Your task to perform on an android device: Show me recent news Image 0: 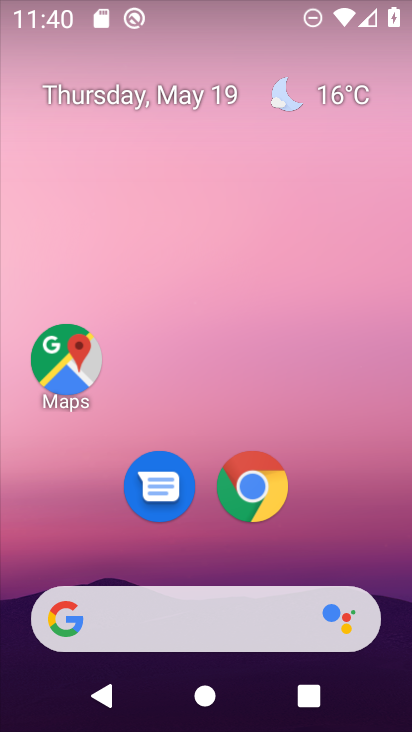
Step 0: click (245, 621)
Your task to perform on an android device: Show me recent news Image 1: 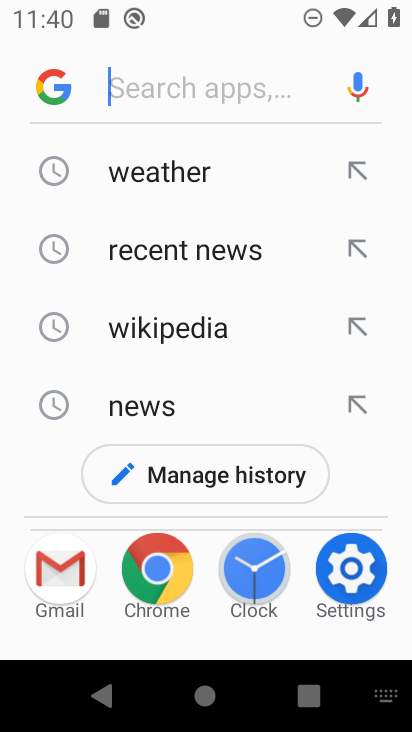
Step 1: click (192, 178)
Your task to perform on an android device: Show me recent news Image 2: 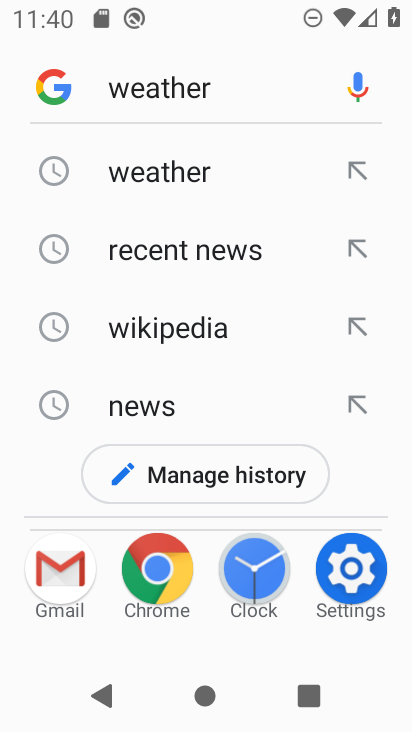
Step 2: click (167, 258)
Your task to perform on an android device: Show me recent news Image 3: 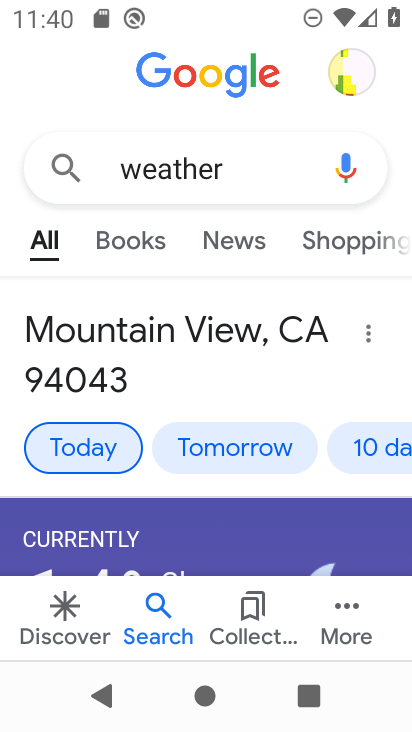
Step 3: click (259, 173)
Your task to perform on an android device: Show me recent news Image 4: 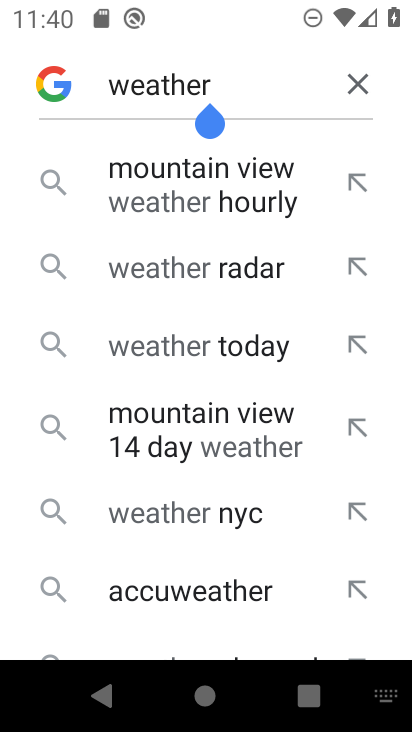
Step 4: click (352, 98)
Your task to perform on an android device: Show me recent news Image 5: 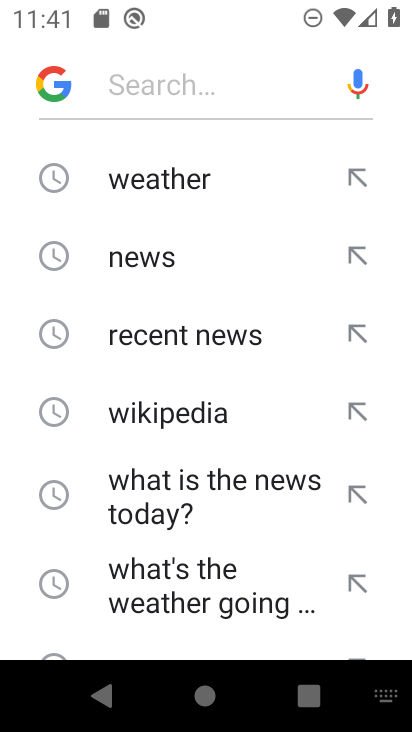
Step 5: click (193, 263)
Your task to perform on an android device: Show me recent news Image 6: 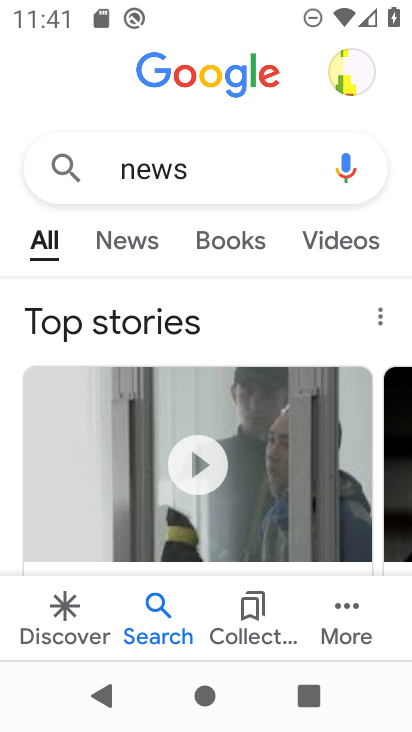
Step 6: task complete